Your task to perform on an android device: Show me productivity apps on the Play Store Image 0: 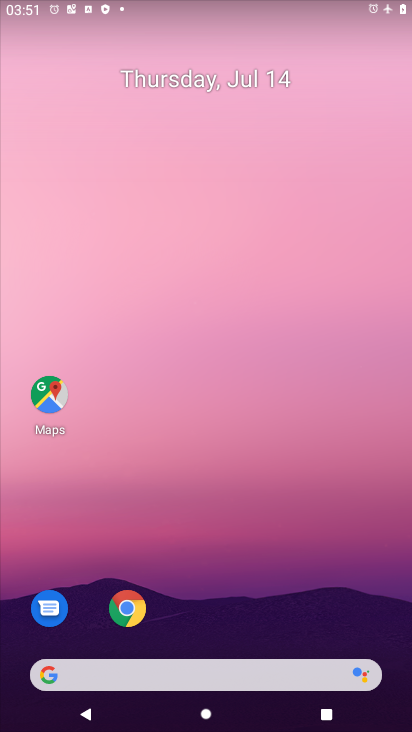
Step 0: drag from (395, 659) to (354, 193)
Your task to perform on an android device: Show me productivity apps on the Play Store Image 1: 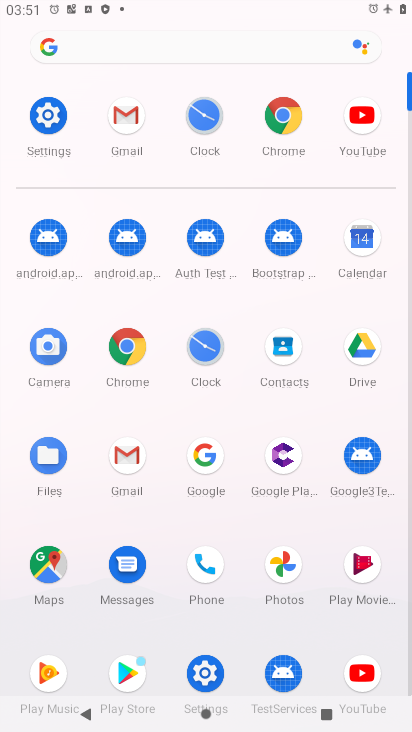
Step 1: click (130, 673)
Your task to perform on an android device: Show me productivity apps on the Play Store Image 2: 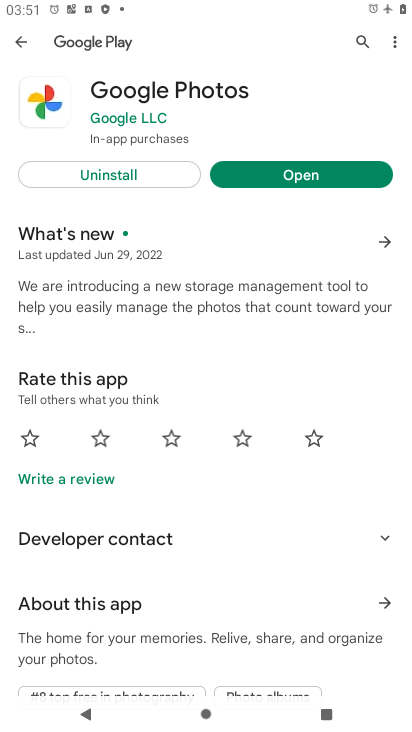
Step 2: press back button
Your task to perform on an android device: Show me productivity apps on the Play Store Image 3: 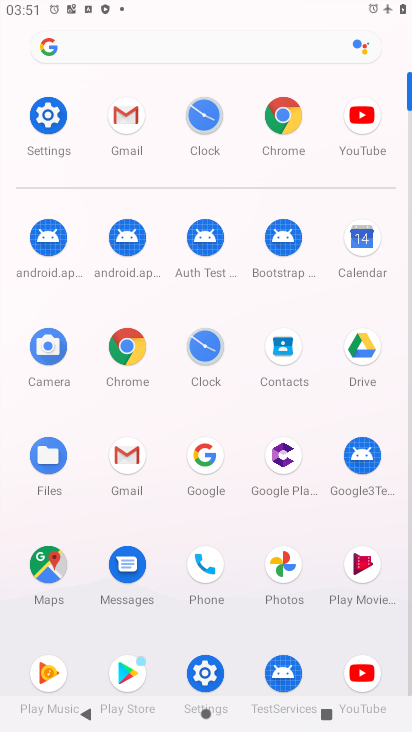
Step 3: click (130, 667)
Your task to perform on an android device: Show me productivity apps on the Play Store Image 4: 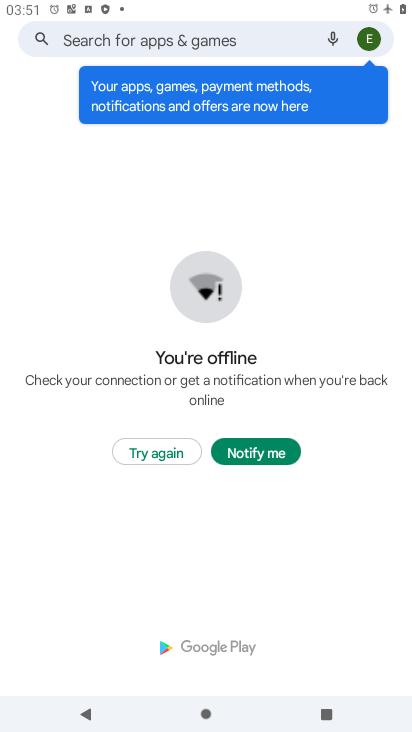
Step 4: click (151, 449)
Your task to perform on an android device: Show me productivity apps on the Play Store Image 5: 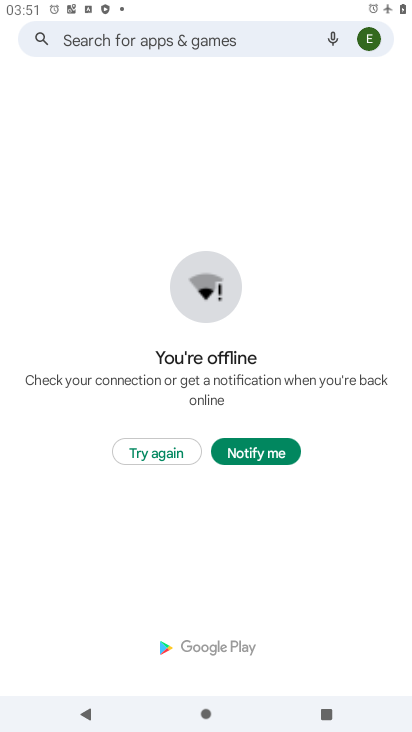
Step 5: press home button
Your task to perform on an android device: Show me productivity apps on the Play Store Image 6: 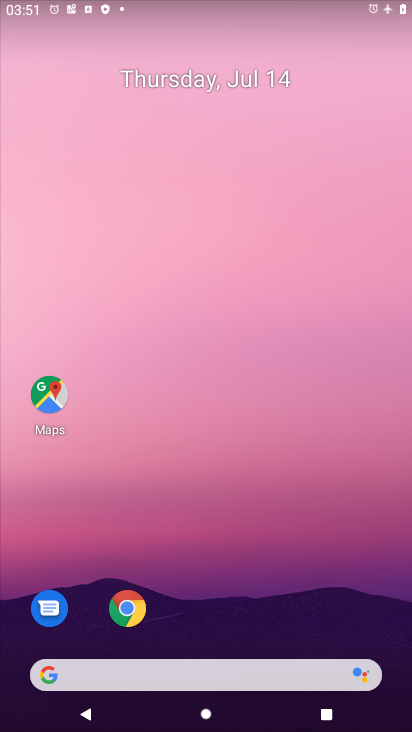
Step 6: drag from (399, 658) to (326, 168)
Your task to perform on an android device: Show me productivity apps on the Play Store Image 7: 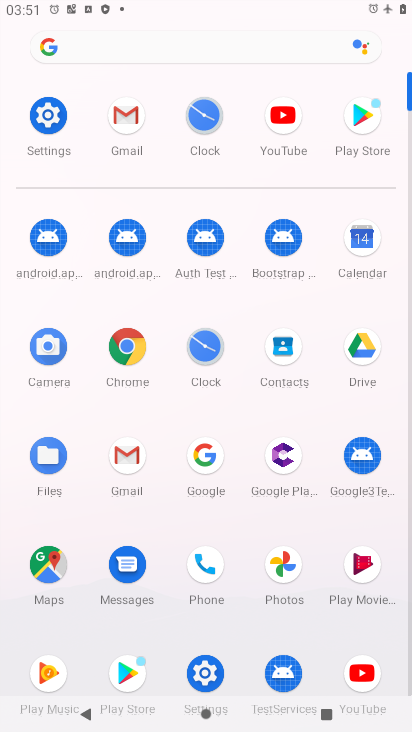
Step 7: click (206, 673)
Your task to perform on an android device: Show me productivity apps on the Play Store Image 8: 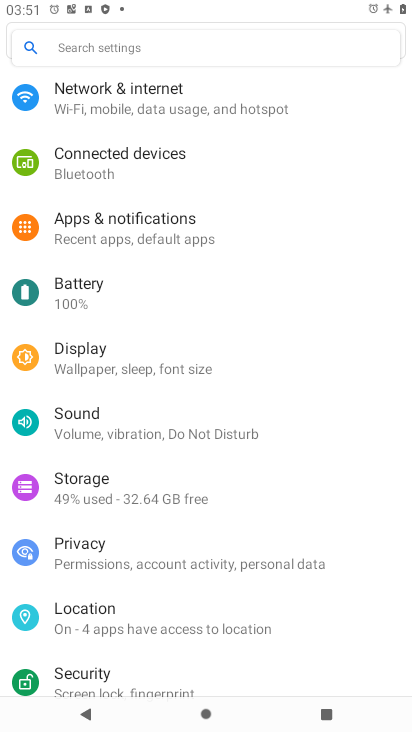
Step 8: click (121, 101)
Your task to perform on an android device: Show me productivity apps on the Play Store Image 9: 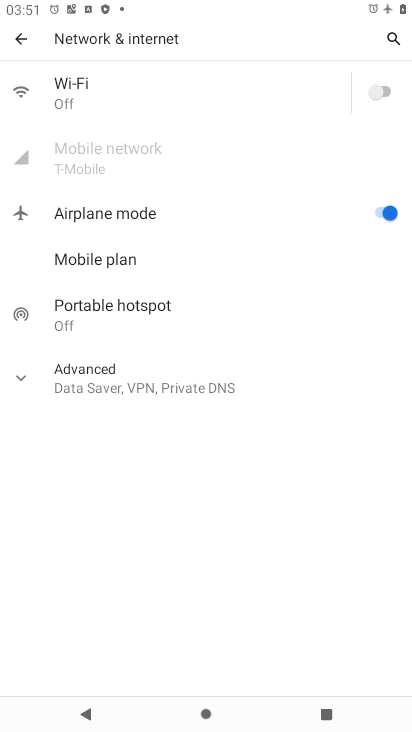
Step 9: click (388, 92)
Your task to perform on an android device: Show me productivity apps on the Play Store Image 10: 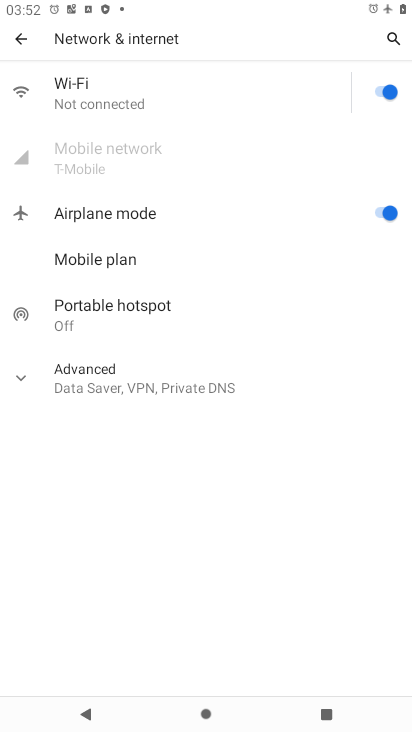
Step 10: click (378, 214)
Your task to perform on an android device: Show me productivity apps on the Play Store Image 11: 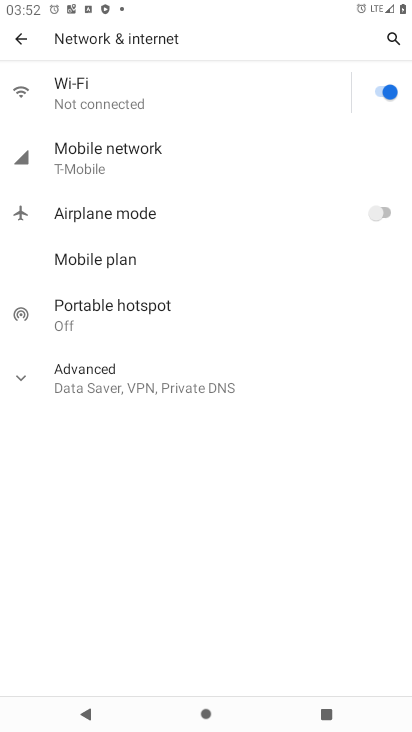
Step 11: press home button
Your task to perform on an android device: Show me productivity apps on the Play Store Image 12: 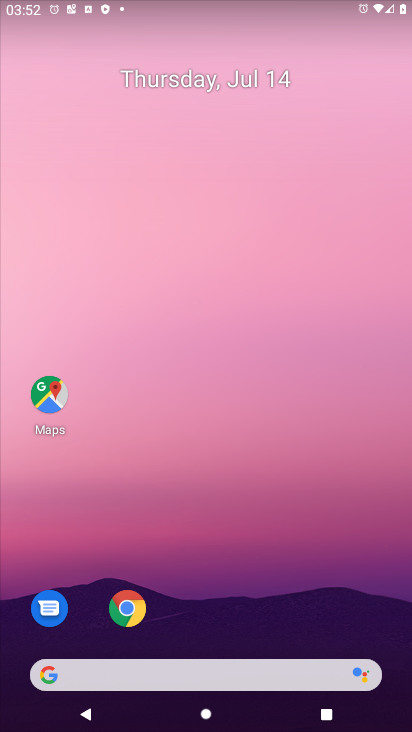
Step 12: drag from (269, 601) to (236, 168)
Your task to perform on an android device: Show me productivity apps on the Play Store Image 13: 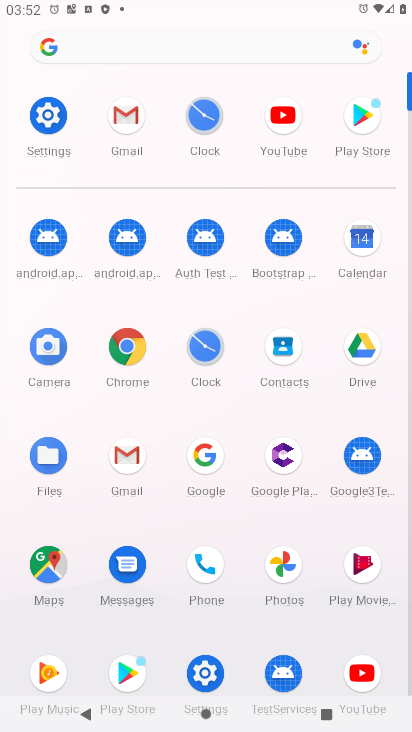
Step 13: click (128, 671)
Your task to perform on an android device: Show me productivity apps on the Play Store Image 14: 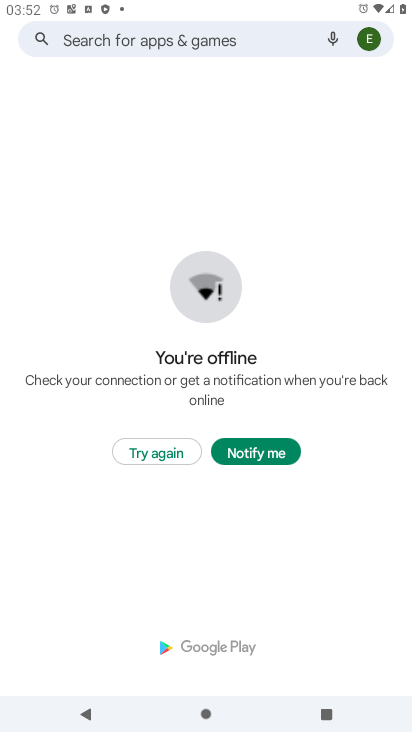
Step 14: click (160, 453)
Your task to perform on an android device: Show me productivity apps on the Play Store Image 15: 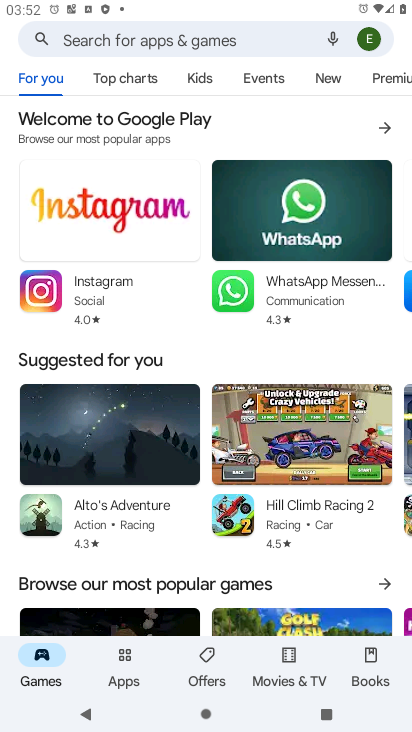
Step 15: drag from (202, 560) to (198, 355)
Your task to perform on an android device: Show me productivity apps on the Play Store Image 16: 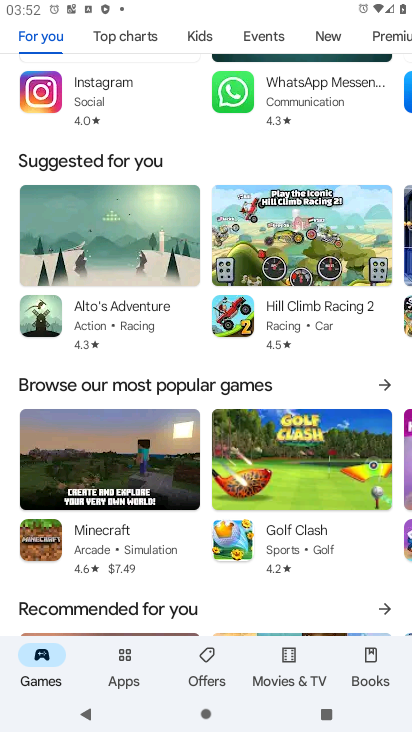
Step 16: drag from (196, 380) to (174, 65)
Your task to perform on an android device: Show me productivity apps on the Play Store Image 17: 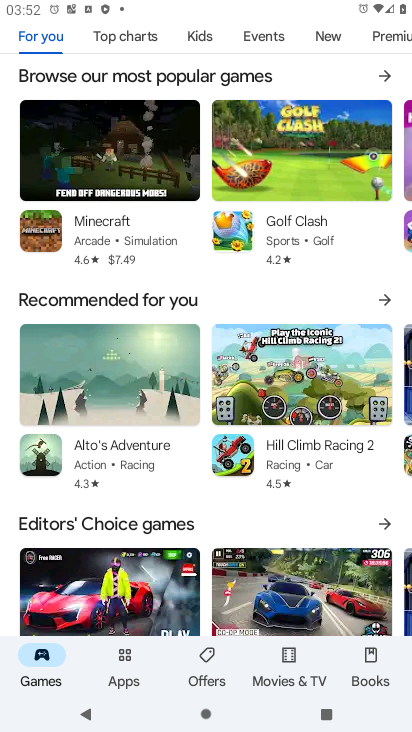
Step 17: drag from (208, 537) to (189, 206)
Your task to perform on an android device: Show me productivity apps on the Play Store Image 18: 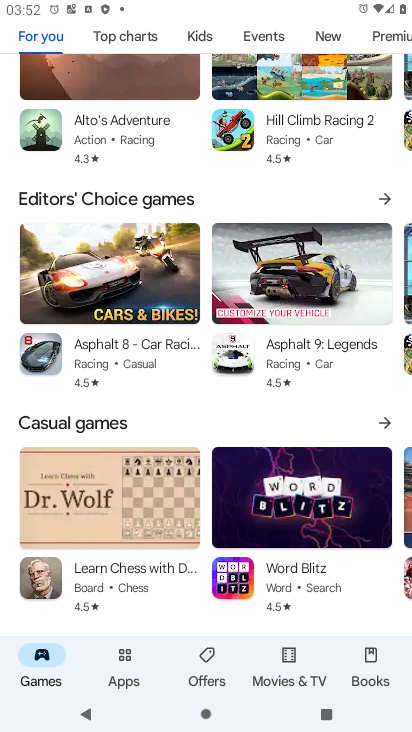
Step 18: drag from (206, 441) to (193, 159)
Your task to perform on an android device: Show me productivity apps on the Play Store Image 19: 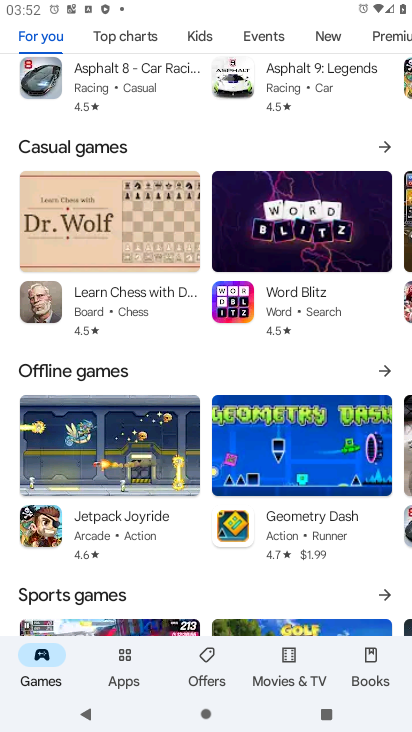
Step 19: click (124, 666)
Your task to perform on an android device: Show me productivity apps on the Play Store Image 20: 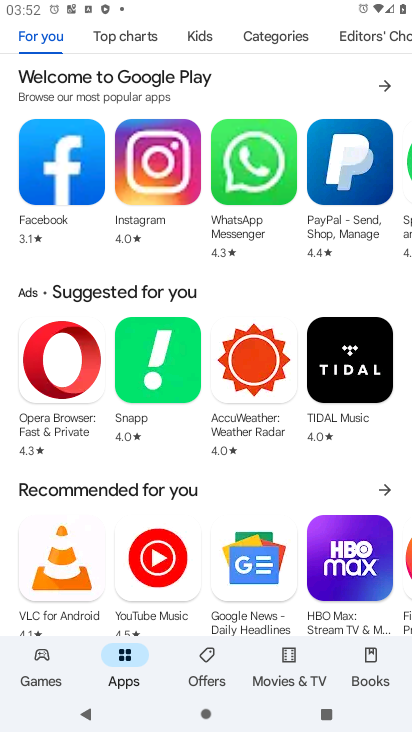
Step 20: click (283, 39)
Your task to perform on an android device: Show me productivity apps on the Play Store Image 21: 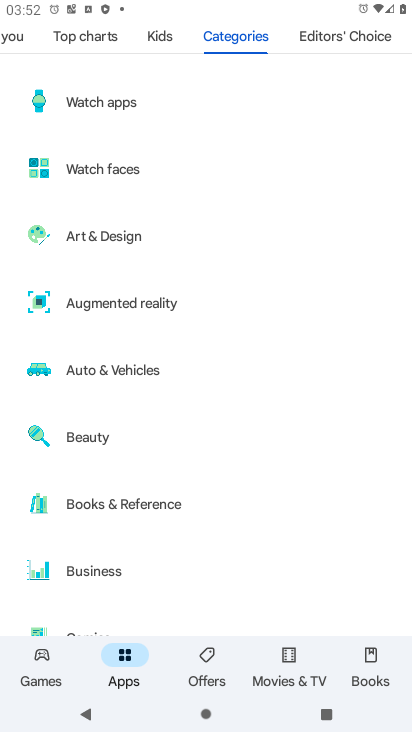
Step 21: drag from (197, 551) to (245, 228)
Your task to perform on an android device: Show me productivity apps on the Play Store Image 22: 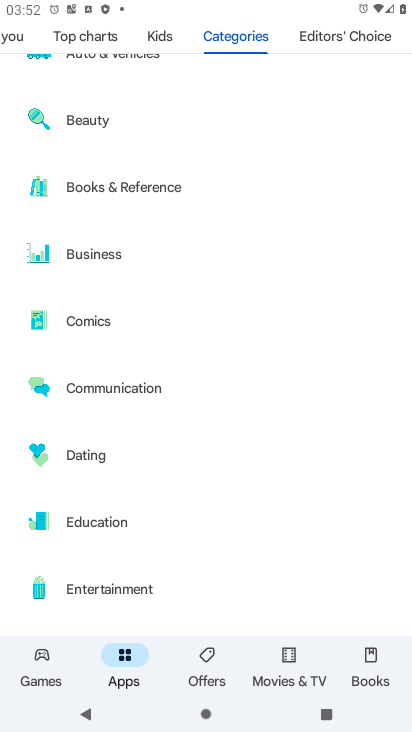
Step 22: drag from (237, 592) to (221, 211)
Your task to perform on an android device: Show me productivity apps on the Play Store Image 23: 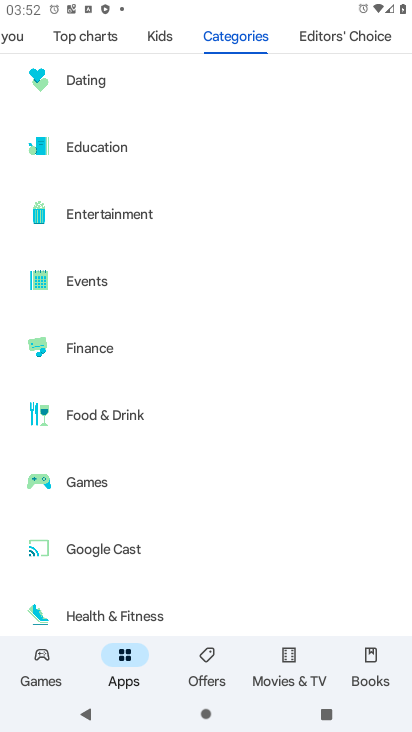
Step 23: drag from (227, 554) to (231, 133)
Your task to perform on an android device: Show me productivity apps on the Play Store Image 24: 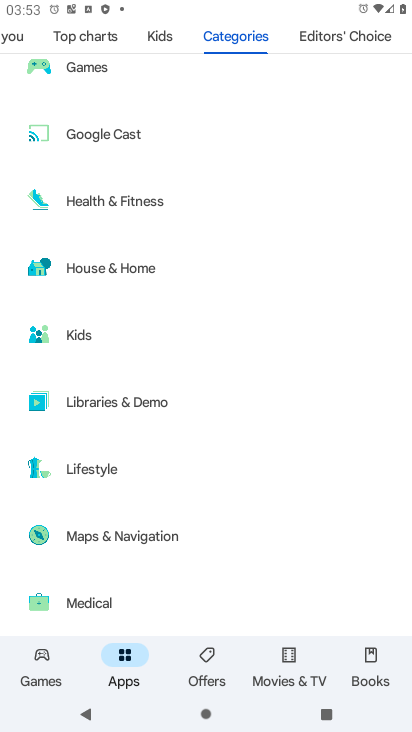
Step 24: drag from (249, 593) to (236, 139)
Your task to perform on an android device: Show me productivity apps on the Play Store Image 25: 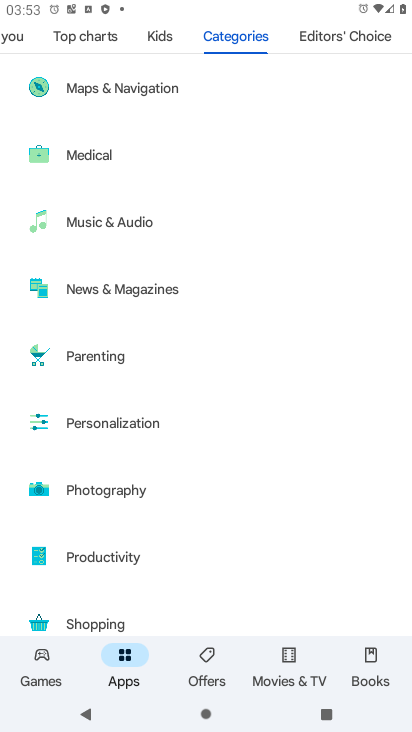
Step 25: click (74, 550)
Your task to perform on an android device: Show me productivity apps on the Play Store Image 26: 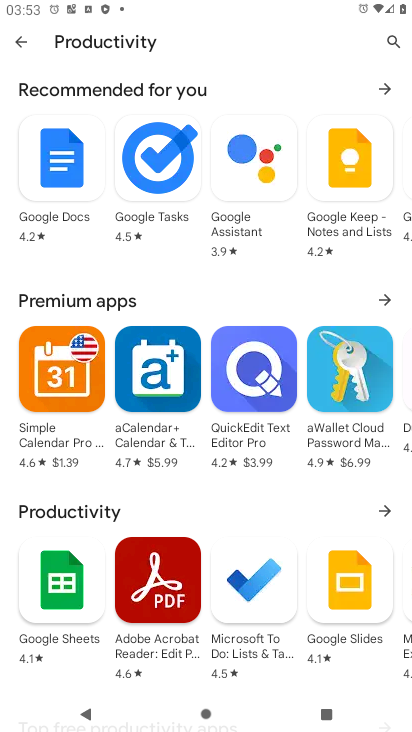
Step 26: drag from (223, 522) to (215, 388)
Your task to perform on an android device: Show me productivity apps on the Play Store Image 27: 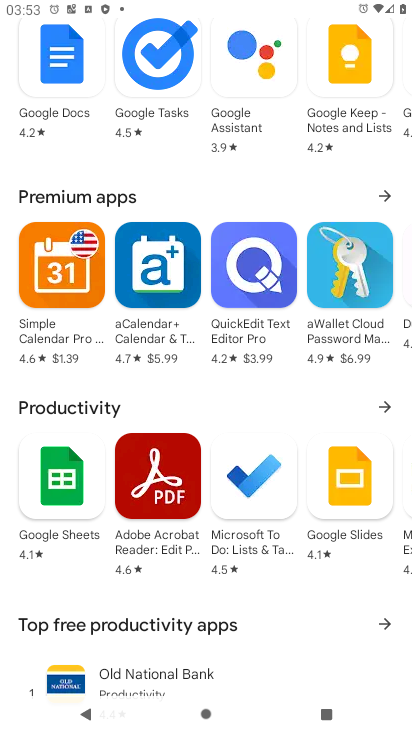
Step 27: click (386, 405)
Your task to perform on an android device: Show me productivity apps on the Play Store Image 28: 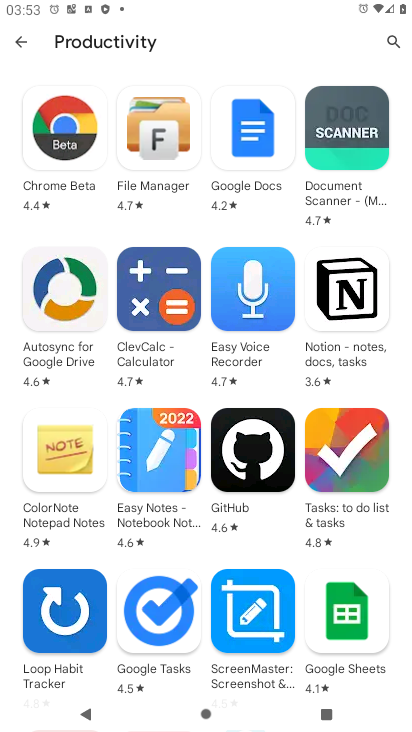
Step 28: task complete